Your task to perform on an android device: When is my next appointment? Image 0: 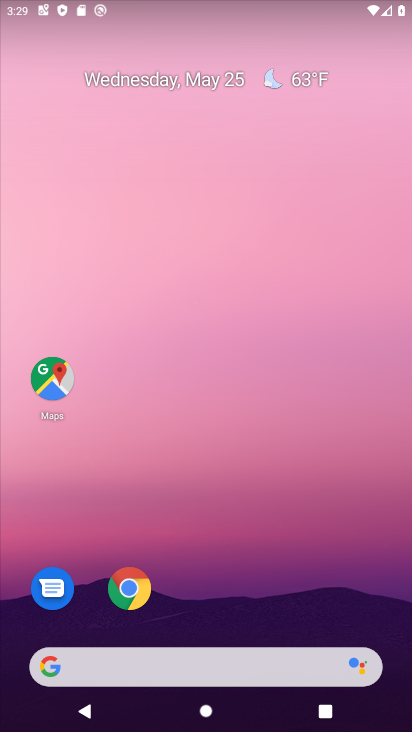
Step 0: drag from (242, 614) to (197, 244)
Your task to perform on an android device: When is my next appointment? Image 1: 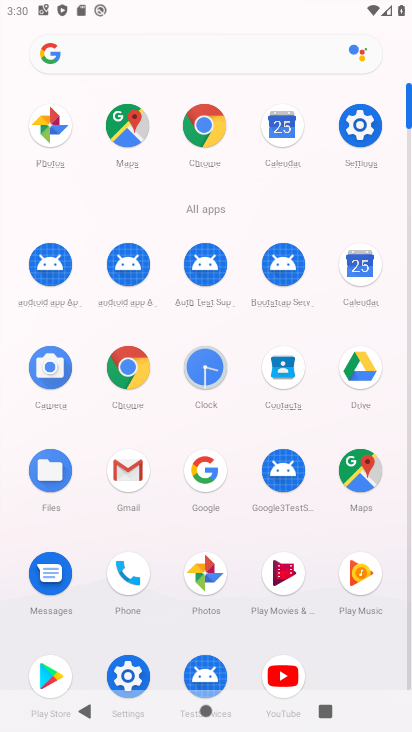
Step 1: click (355, 256)
Your task to perform on an android device: When is my next appointment? Image 2: 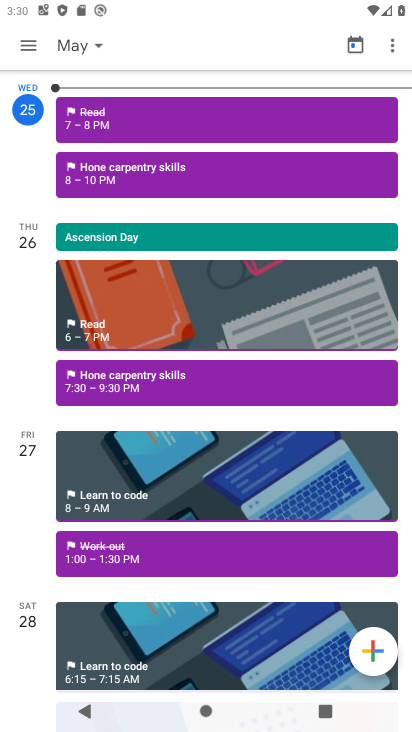
Step 2: task complete